Your task to perform on an android device: toggle javascript in the chrome app Image 0: 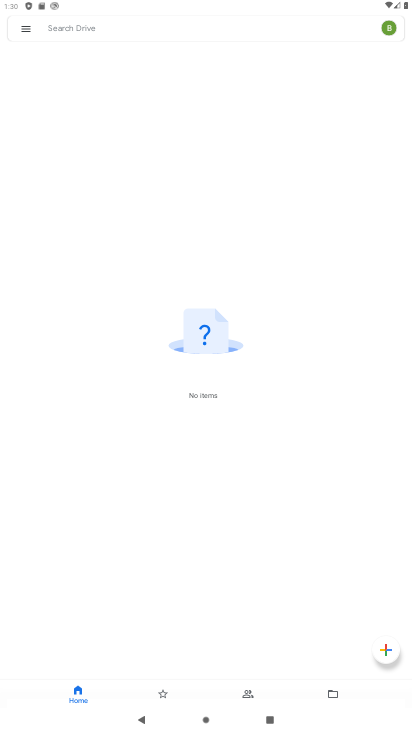
Step 0: press home button
Your task to perform on an android device: toggle javascript in the chrome app Image 1: 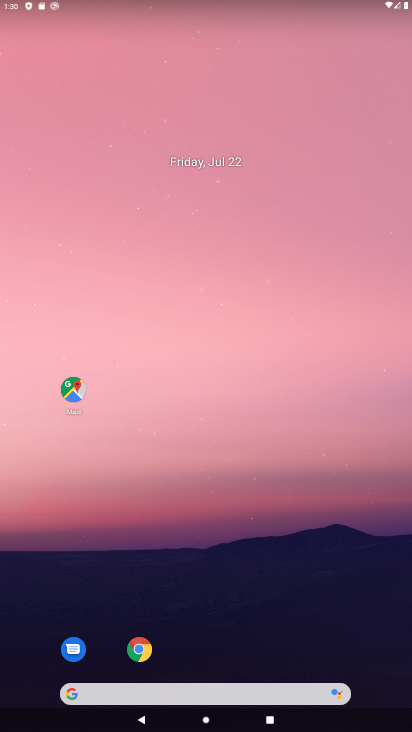
Step 1: click (150, 649)
Your task to perform on an android device: toggle javascript in the chrome app Image 2: 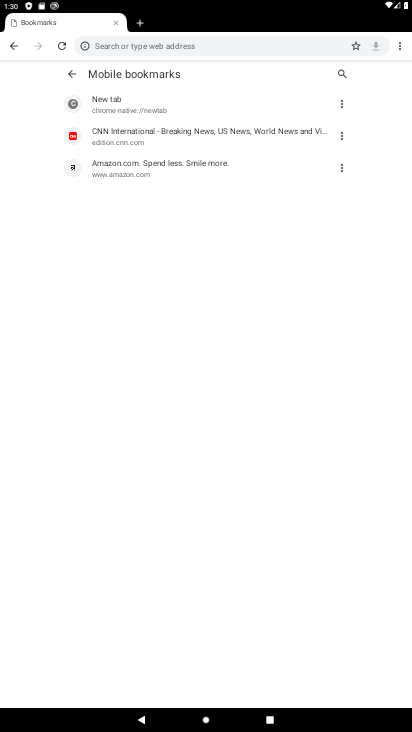
Step 2: click (404, 48)
Your task to perform on an android device: toggle javascript in the chrome app Image 3: 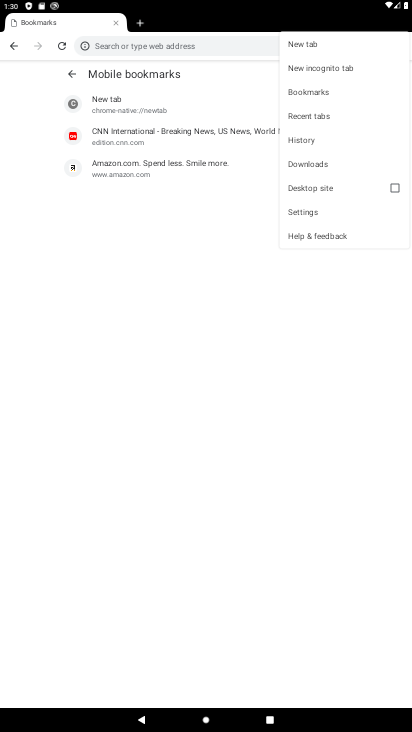
Step 3: click (310, 213)
Your task to perform on an android device: toggle javascript in the chrome app Image 4: 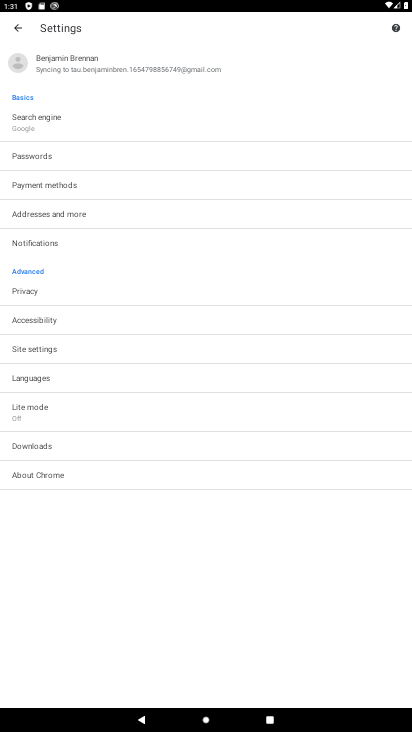
Step 4: click (103, 348)
Your task to perform on an android device: toggle javascript in the chrome app Image 5: 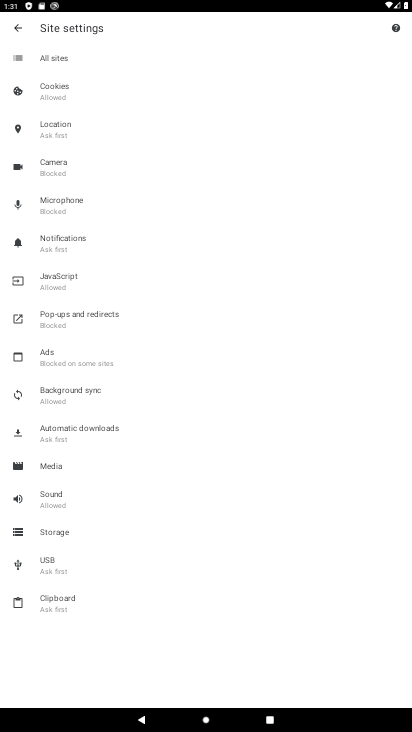
Step 5: click (119, 283)
Your task to perform on an android device: toggle javascript in the chrome app Image 6: 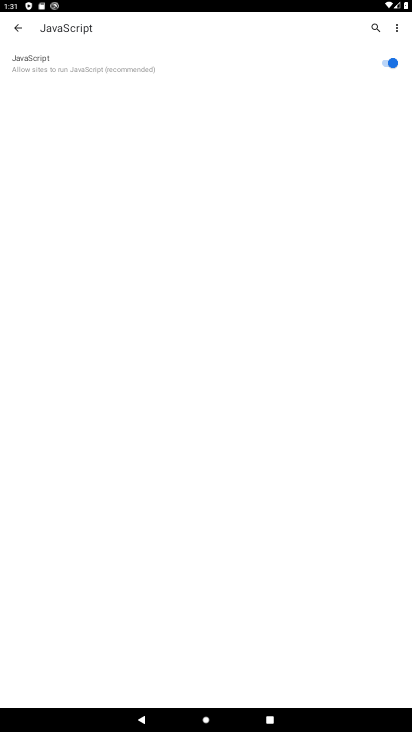
Step 6: click (391, 64)
Your task to perform on an android device: toggle javascript in the chrome app Image 7: 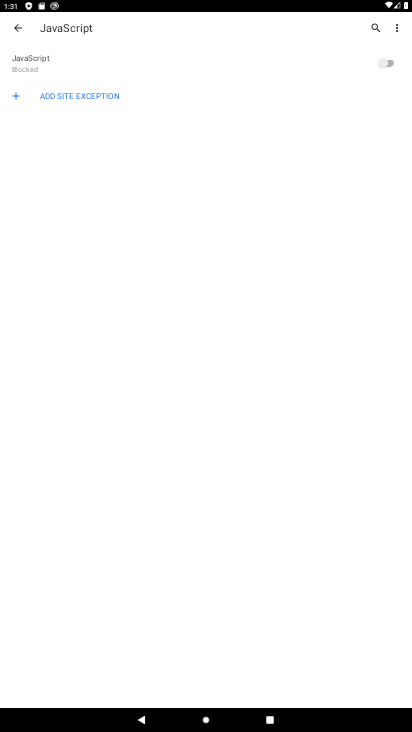
Step 7: task complete